Your task to perform on an android device: Turn off the flashlight Image 0: 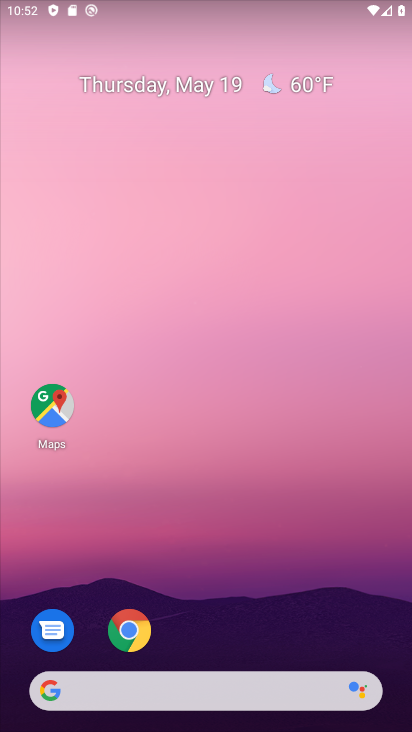
Step 0: click (241, 277)
Your task to perform on an android device: Turn off the flashlight Image 1: 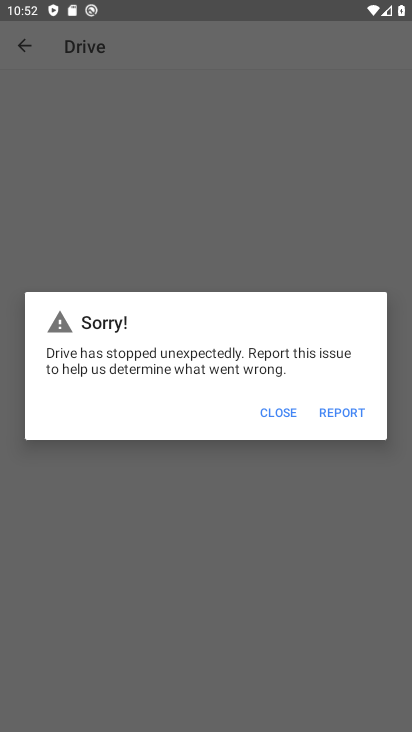
Step 1: press home button
Your task to perform on an android device: Turn off the flashlight Image 2: 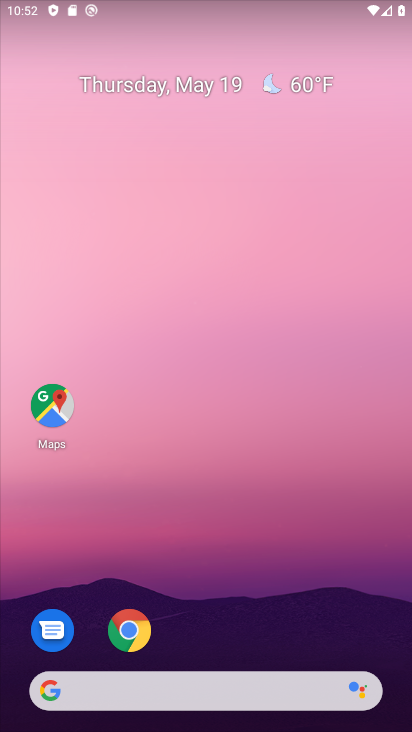
Step 2: drag from (279, 6) to (194, 483)
Your task to perform on an android device: Turn off the flashlight Image 3: 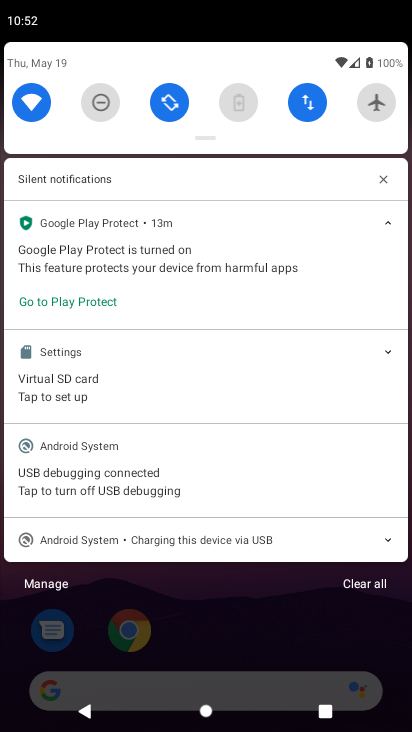
Step 3: drag from (205, 129) to (179, 500)
Your task to perform on an android device: Turn off the flashlight Image 4: 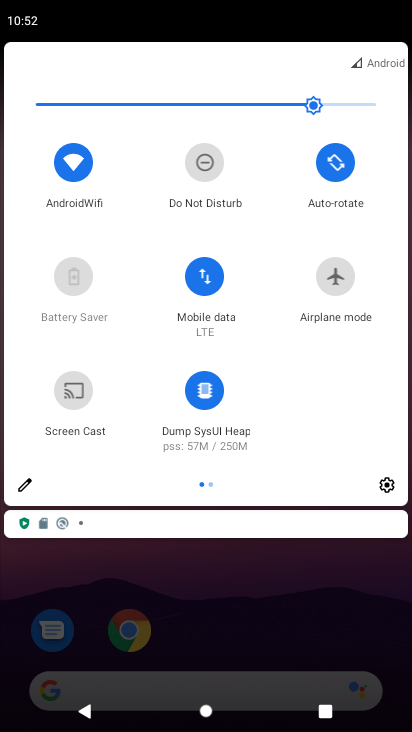
Step 4: click (27, 490)
Your task to perform on an android device: Turn off the flashlight Image 5: 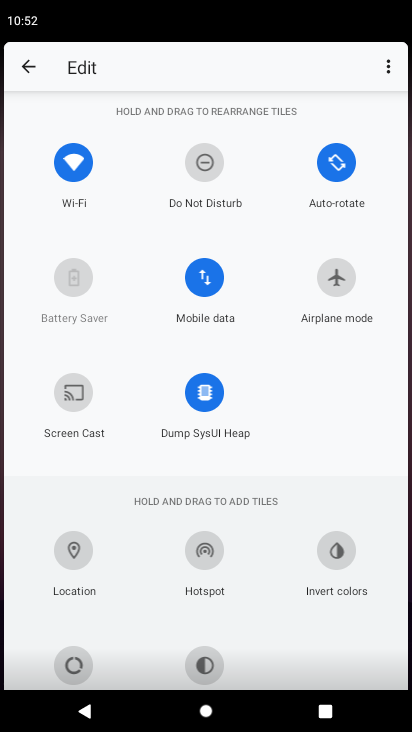
Step 5: task complete